Your task to perform on an android device: delete location history Image 0: 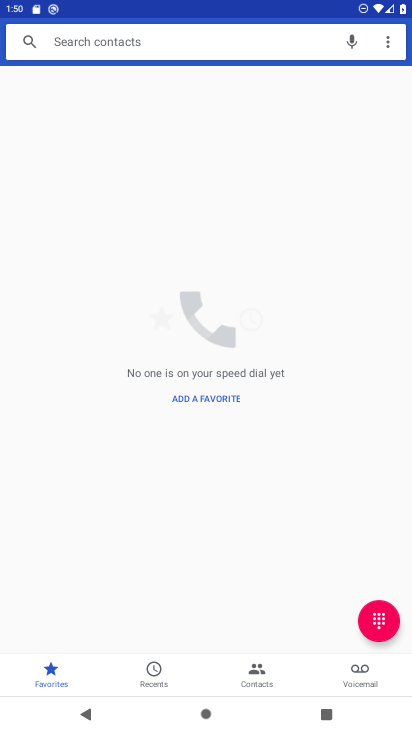
Step 0: press home button
Your task to perform on an android device: delete location history Image 1: 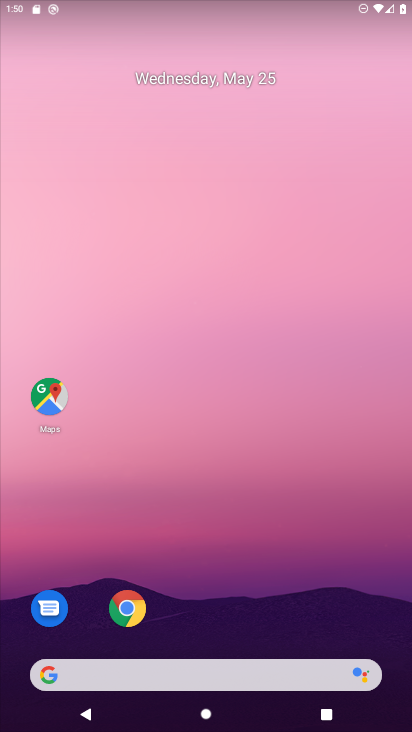
Step 1: drag from (126, 664) to (256, 251)
Your task to perform on an android device: delete location history Image 2: 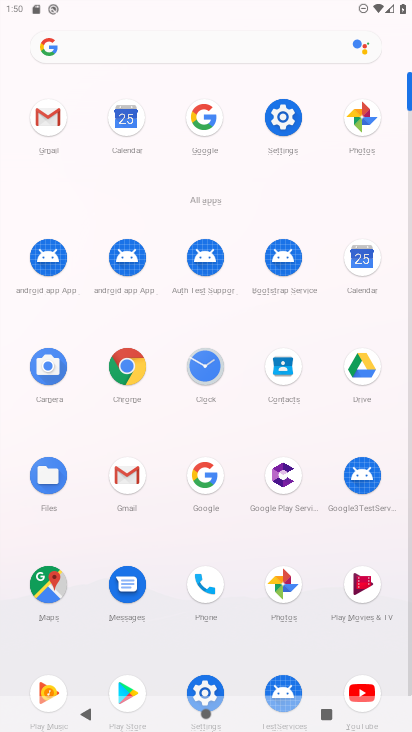
Step 2: click (281, 117)
Your task to perform on an android device: delete location history Image 3: 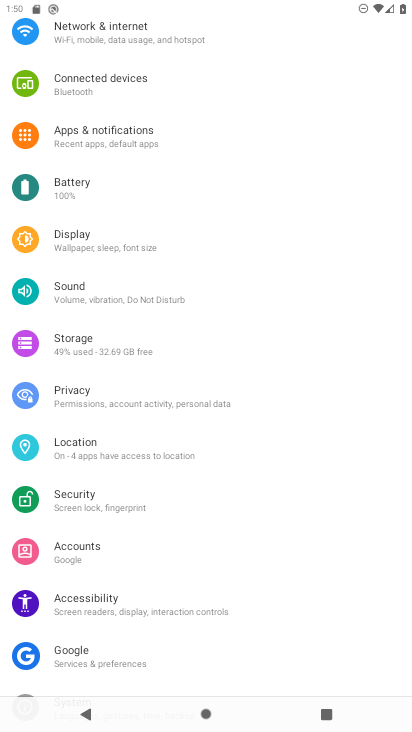
Step 3: drag from (114, 591) to (201, 239)
Your task to perform on an android device: delete location history Image 4: 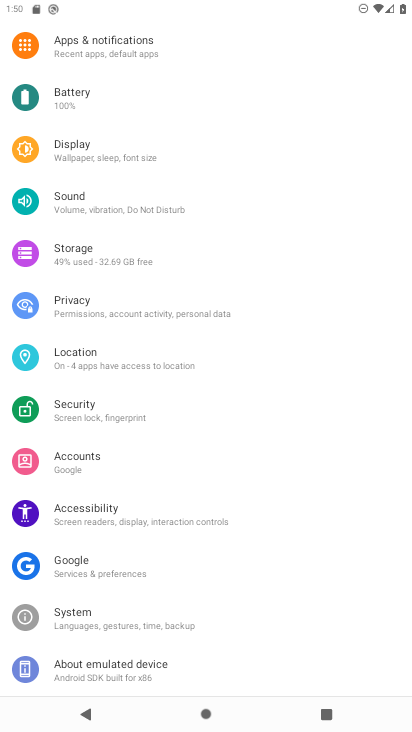
Step 4: click (114, 365)
Your task to perform on an android device: delete location history Image 5: 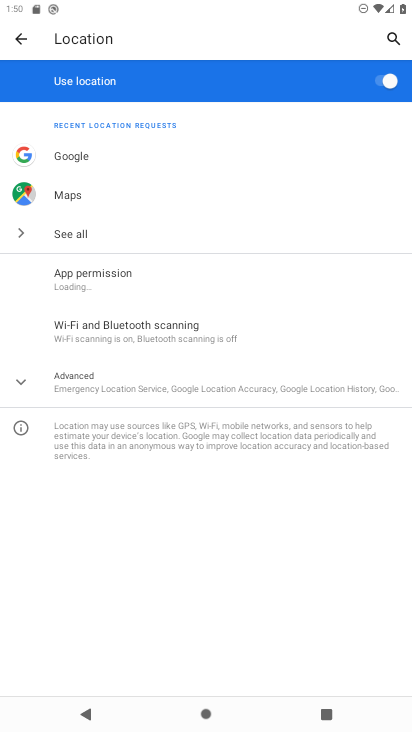
Step 5: click (82, 377)
Your task to perform on an android device: delete location history Image 6: 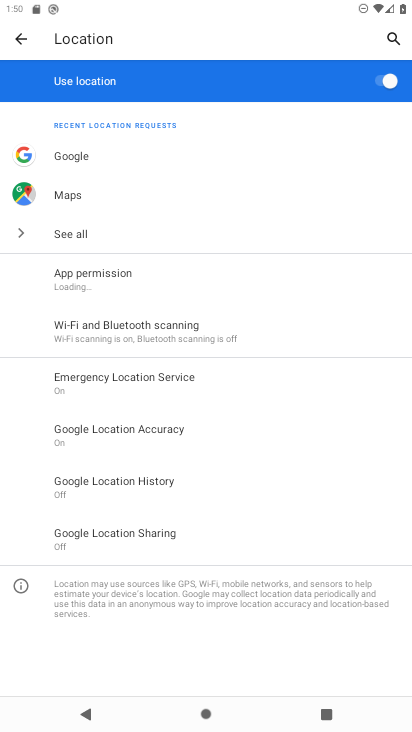
Step 6: drag from (156, 598) to (213, 349)
Your task to perform on an android device: delete location history Image 7: 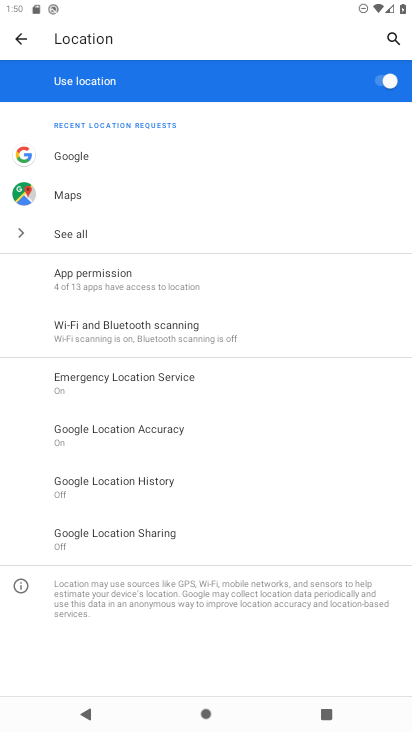
Step 7: click (115, 487)
Your task to perform on an android device: delete location history Image 8: 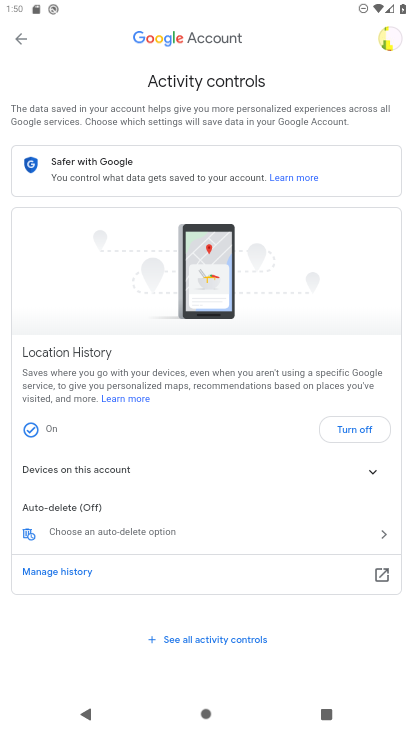
Step 8: click (132, 530)
Your task to perform on an android device: delete location history Image 9: 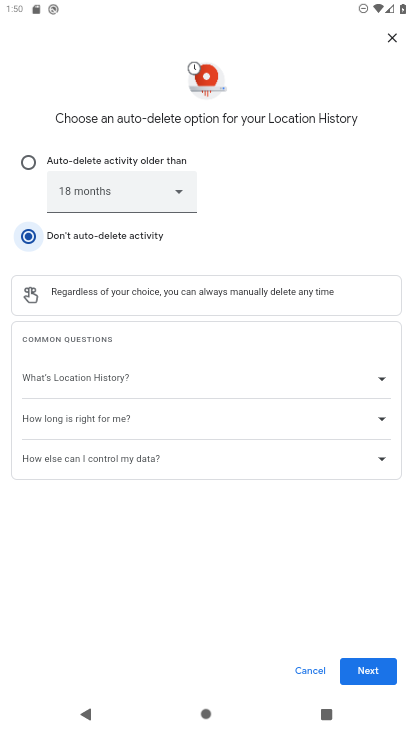
Step 9: click (360, 668)
Your task to perform on an android device: delete location history Image 10: 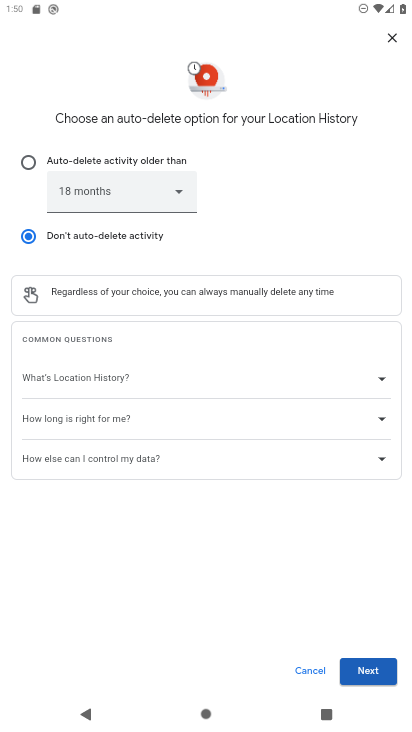
Step 10: click (360, 668)
Your task to perform on an android device: delete location history Image 11: 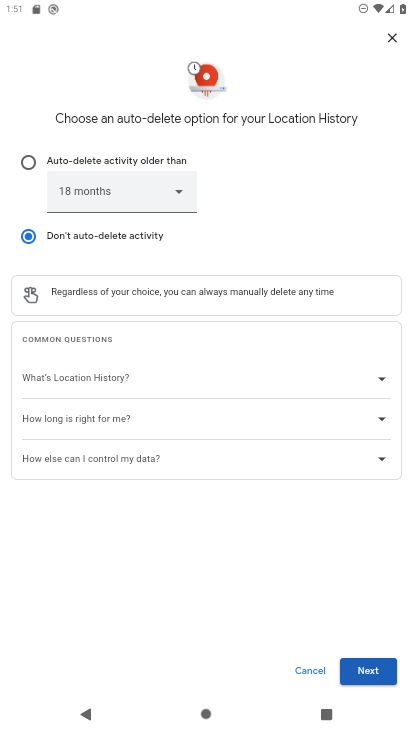
Step 11: click (366, 663)
Your task to perform on an android device: delete location history Image 12: 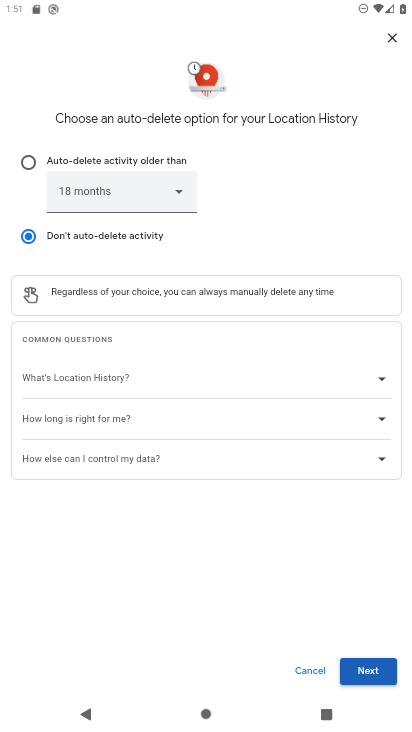
Step 12: click (370, 673)
Your task to perform on an android device: delete location history Image 13: 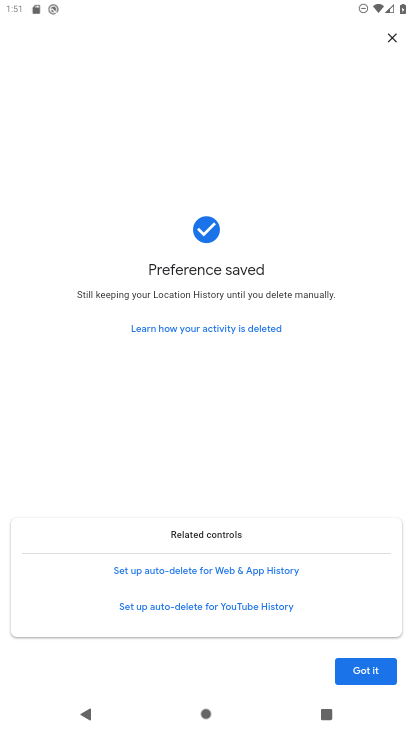
Step 13: click (370, 673)
Your task to perform on an android device: delete location history Image 14: 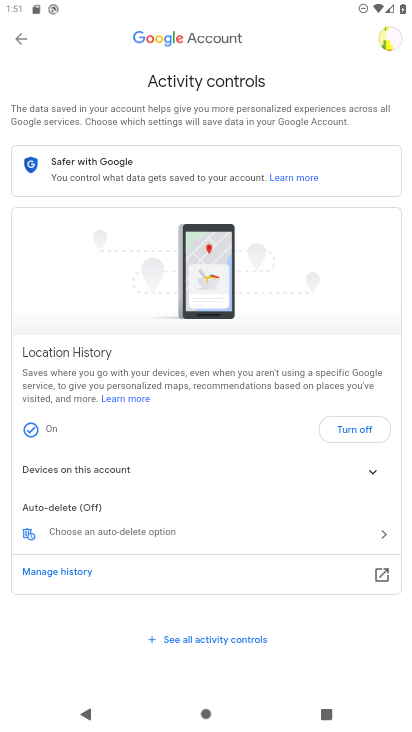
Step 14: task complete